Your task to perform on an android device: Go to accessibility settings Image 0: 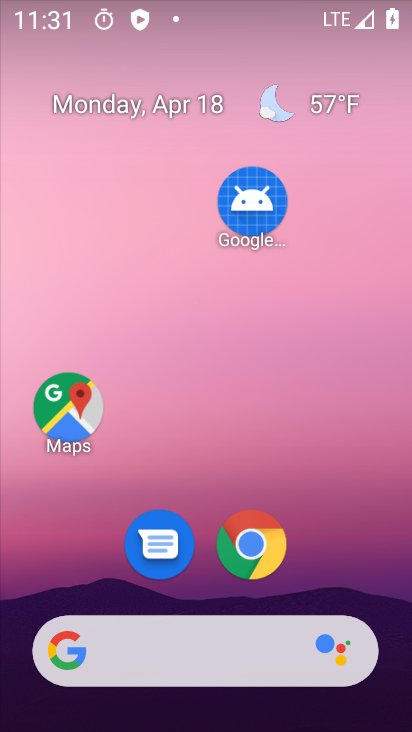
Step 0: click (313, 171)
Your task to perform on an android device: Go to accessibility settings Image 1: 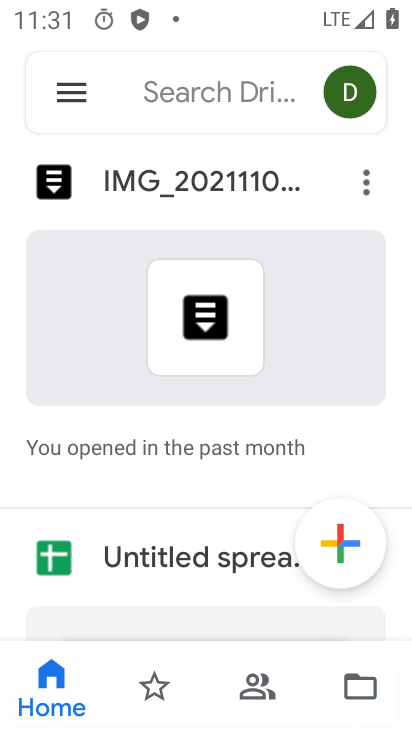
Step 1: press home button
Your task to perform on an android device: Go to accessibility settings Image 2: 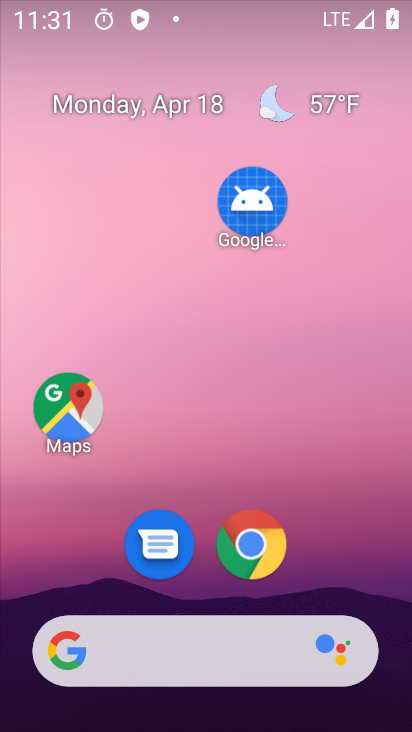
Step 2: drag from (229, 506) to (198, 321)
Your task to perform on an android device: Go to accessibility settings Image 3: 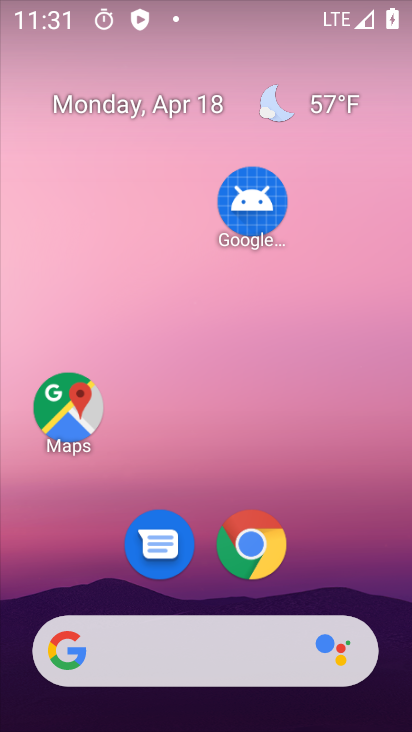
Step 3: drag from (308, 585) to (292, 145)
Your task to perform on an android device: Go to accessibility settings Image 4: 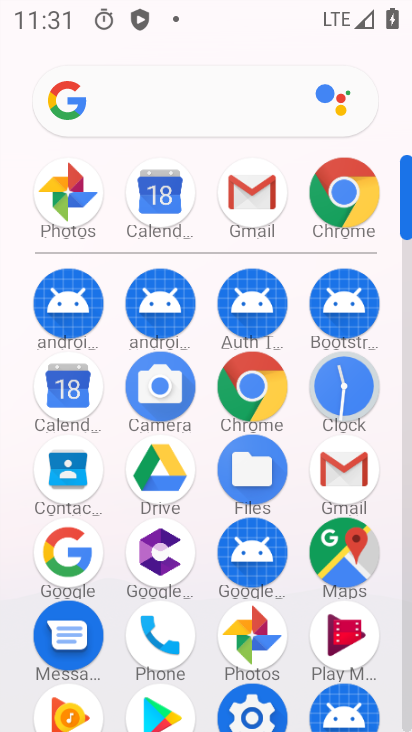
Step 4: drag from (206, 642) to (250, 340)
Your task to perform on an android device: Go to accessibility settings Image 5: 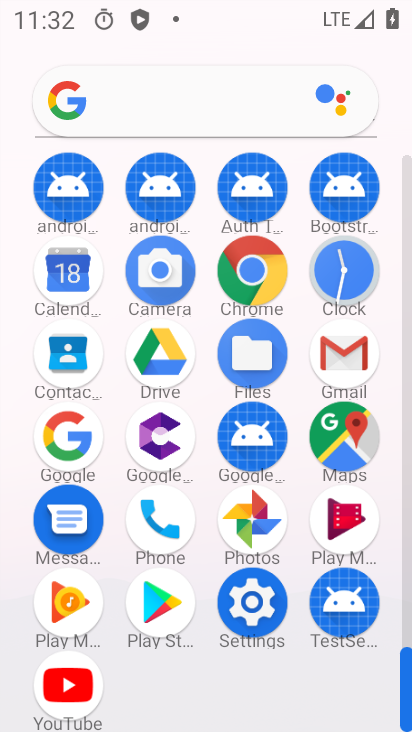
Step 5: click (267, 591)
Your task to perform on an android device: Go to accessibility settings Image 6: 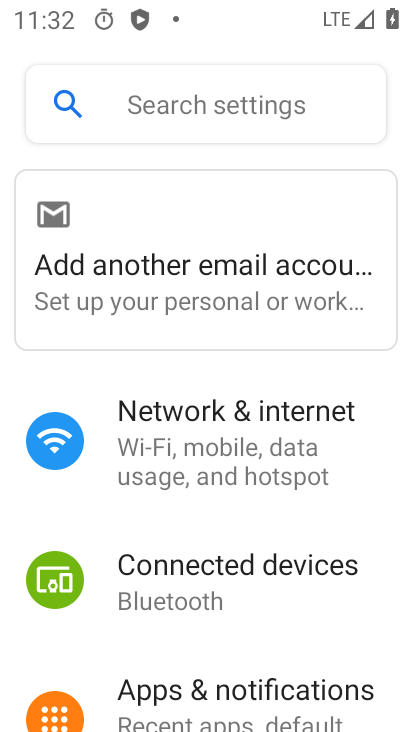
Step 6: drag from (275, 558) to (292, 128)
Your task to perform on an android device: Go to accessibility settings Image 7: 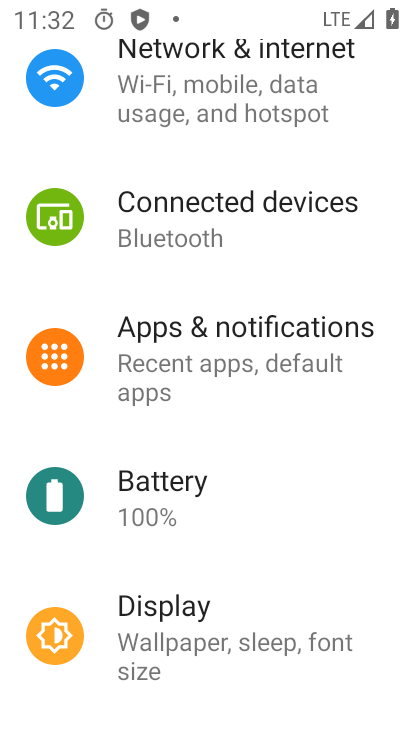
Step 7: drag from (215, 598) to (193, 148)
Your task to perform on an android device: Go to accessibility settings Image 8: 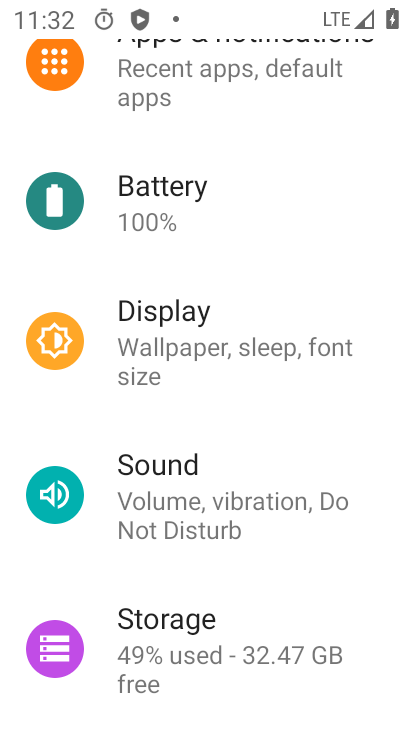
Step 8: drag from (227, 627) to (243, 168)
Your task to perform on an android device: Go to accessibility settings Image 9: 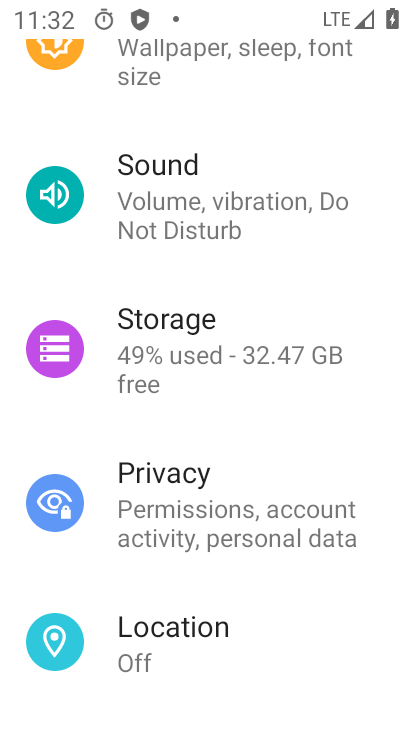
Step 9: drag from (223, 577) to (210, 267)
Your task to perform on an android device: Go to accessibility settings Image 10: 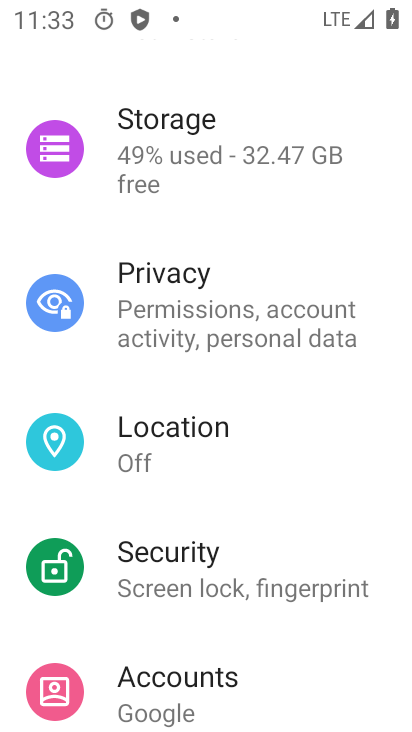
Step 10: drag from (223, 625) to (245, 171)
Your task to perform on an android device: Go to accessibility settings Image 11: 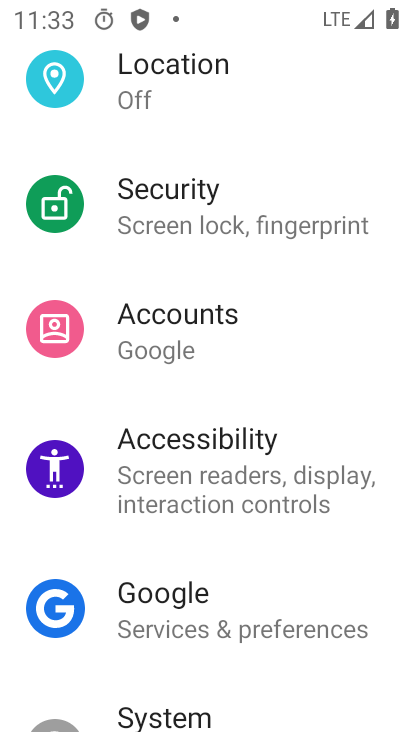
Step 11: click (238, 446)
Your task to perform on an android device: Go to accessibility settings Image 12: 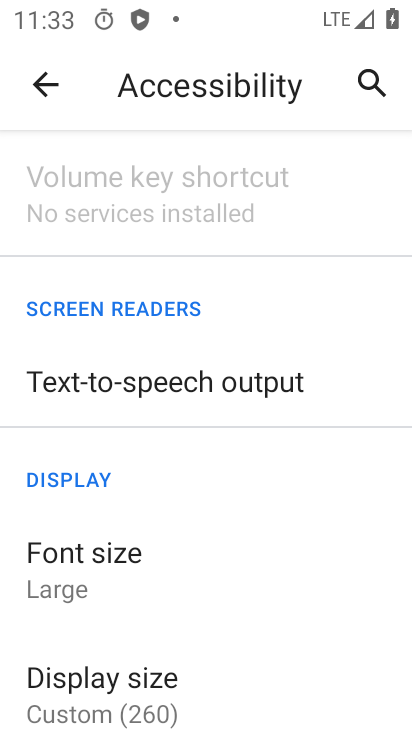
Step 12: task complete